Your task to perform on an android device: Clear the cart on ebay. Add "usb-c to usb-a" to the cart on ebay, then select checkout. Image 0: 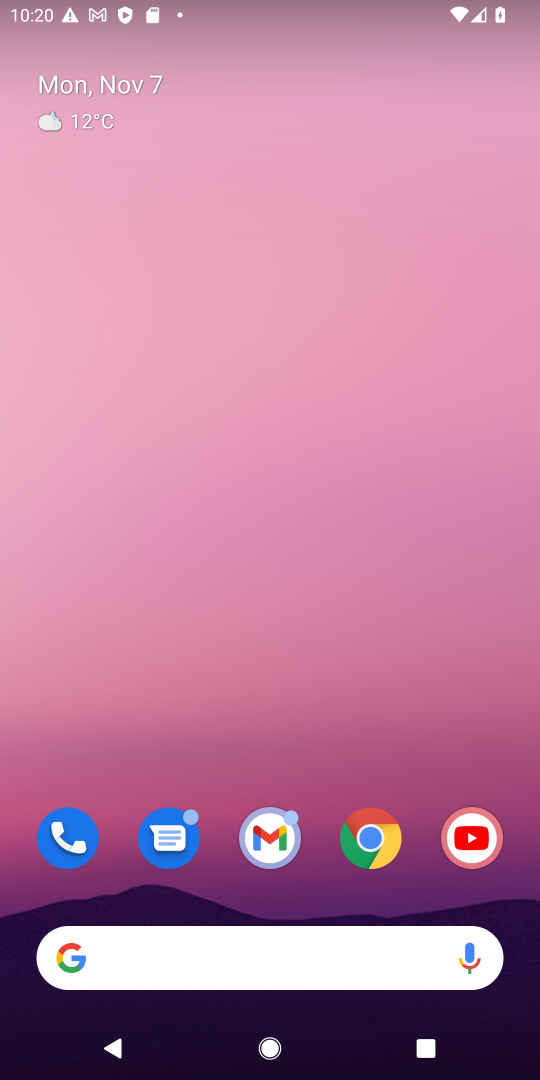
Step 0: click (374, 840)
Your task to perform on an android device: Clear the cart on ebay. Add "usb-c to usb-a" to the cart on ebay, then select checkout. Image 1: 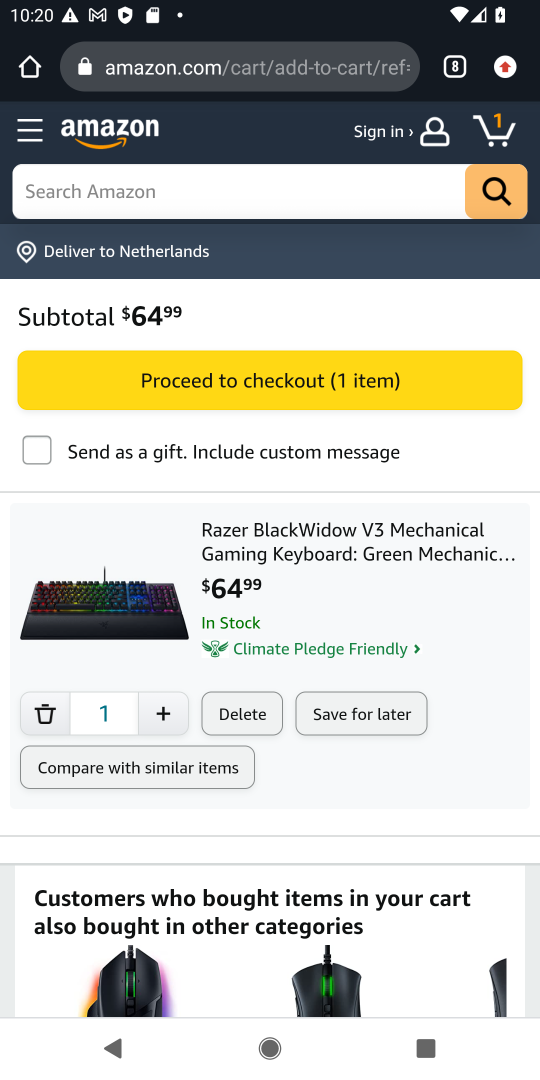
Step 1: click (452, 71)
Your task to perform on an android device: Clear the cart on ebay. Add "usb-c to usb-a" to the cart on ebay, then select checkout. Image 2: 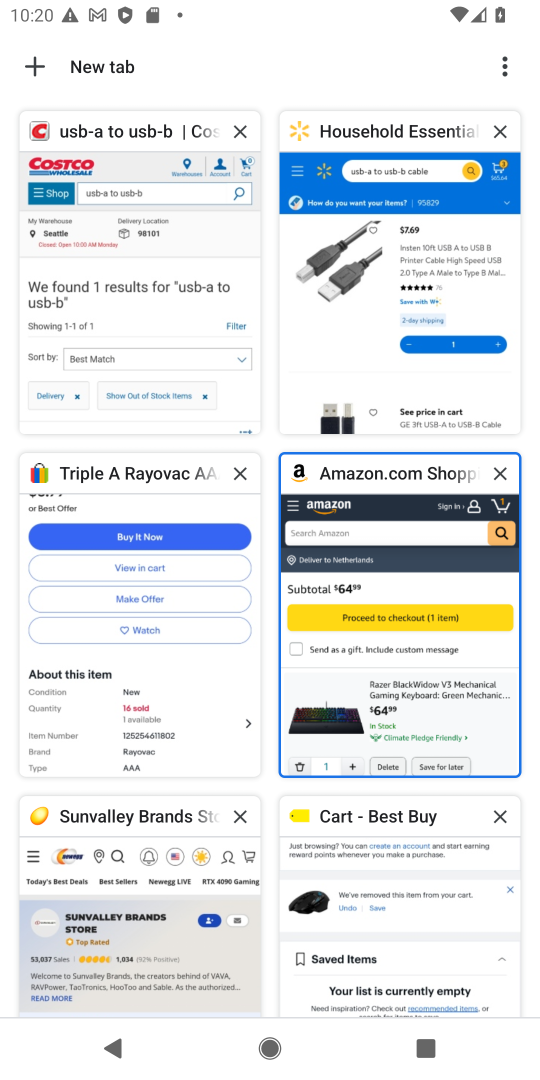
Step 2: click (141, 635)
Your task to perform on an android device: Clear the cart on ebay. Add "usb-c to usb-a" to the cart on ebay, then select checkout. Image 3: 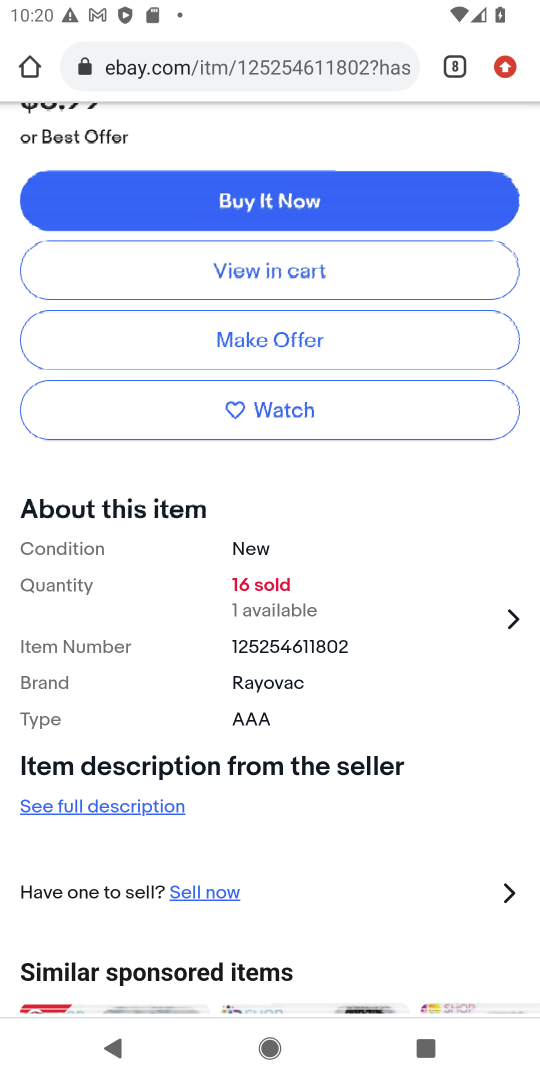
Step 3: click (306, 271)
Your task to perform on an android device: Clear the cart on ebay. Add "usb-c to usb-a" to the cart on ebay, then select checkout. Image 4: 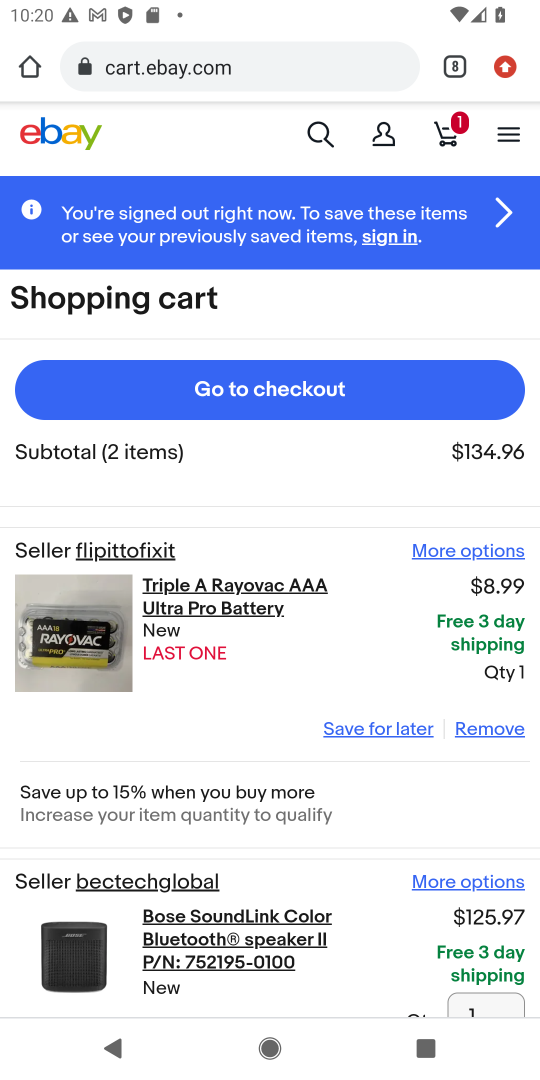
Step 4: click (496, 730)
Your task to perform on an android device: Clear the cart on ebay. Add "usb-c to usb-a" to the cart on ebay, then select checkout. Image 5: 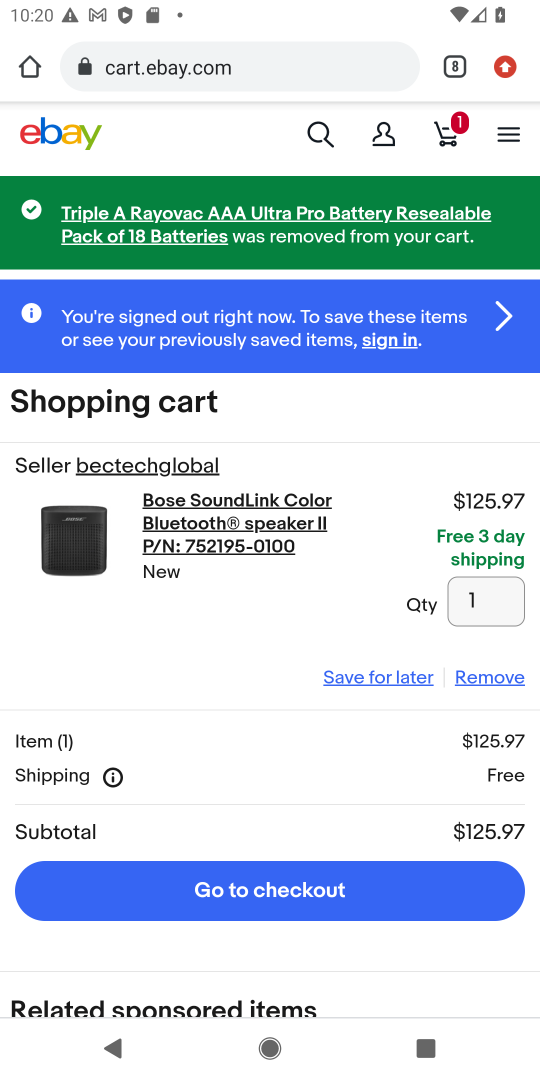
Step 5: click (490, 687)
Your task to perform on an android device: Clear the cart on ebay. Add "usb-c to usb-a" to the cart on ebay, then select checkout. Image 6: 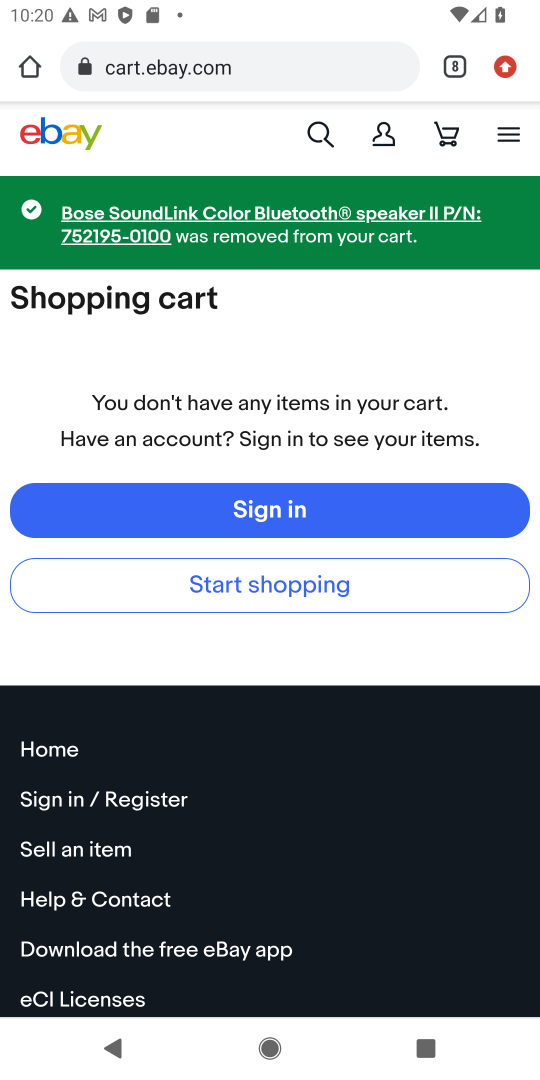
Step 6: click (324, 132)
Your task to perform on an android device: Clear the cart on ebay. Add "usb-c to usb-a" to the cart on ebay, then select checkout. Image 7: 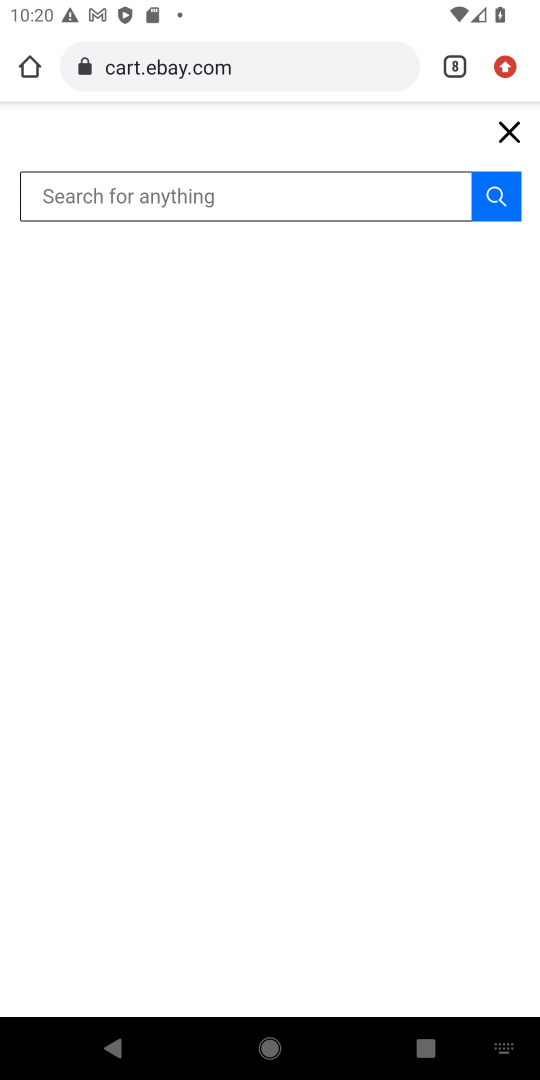
Step 7: type "usb-c to usb-a"
Your task to perform on an android device: Clear the cart on ebay. Add "usb-c to usb-a" to the cart on ebay, then select checkout. Image 8: 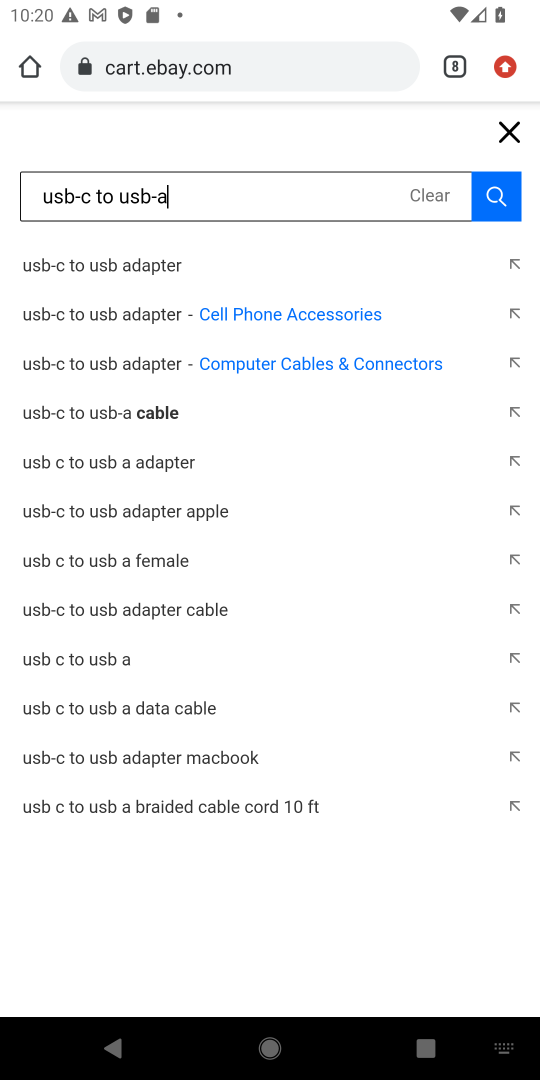
Step 8: click (135, 308)
Your task to perform on an android device: Clear the cart on ebay. Add "usb-c to usb-a" to the cart on ebay, then select checkout. Image 9: 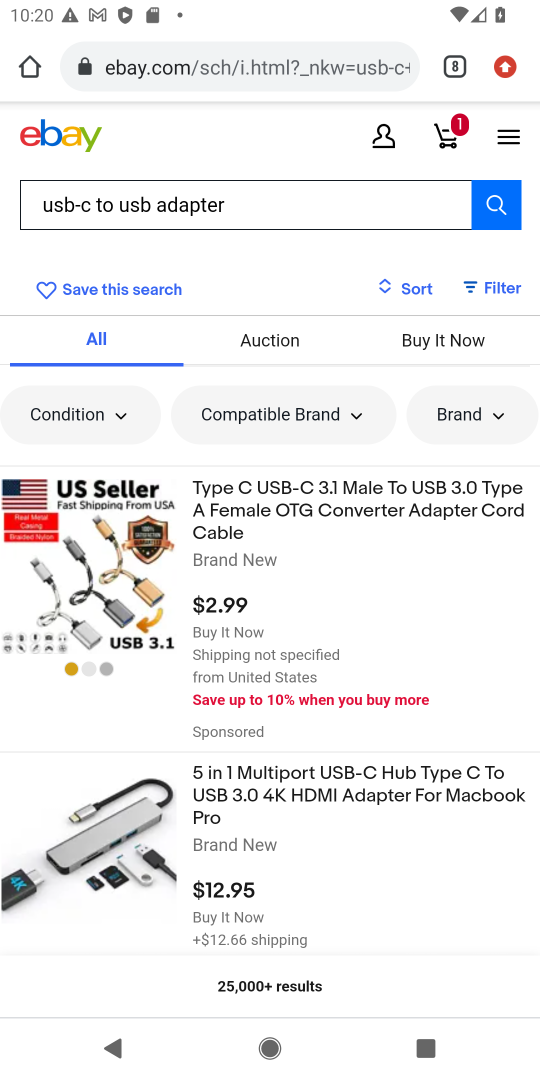
Step 9: click (363, 508)
Your task to perform on an android device: Clear the cart on ebay. Add "usb-c to usb-a" to the cart on ebay, then select checkout. Image 10: 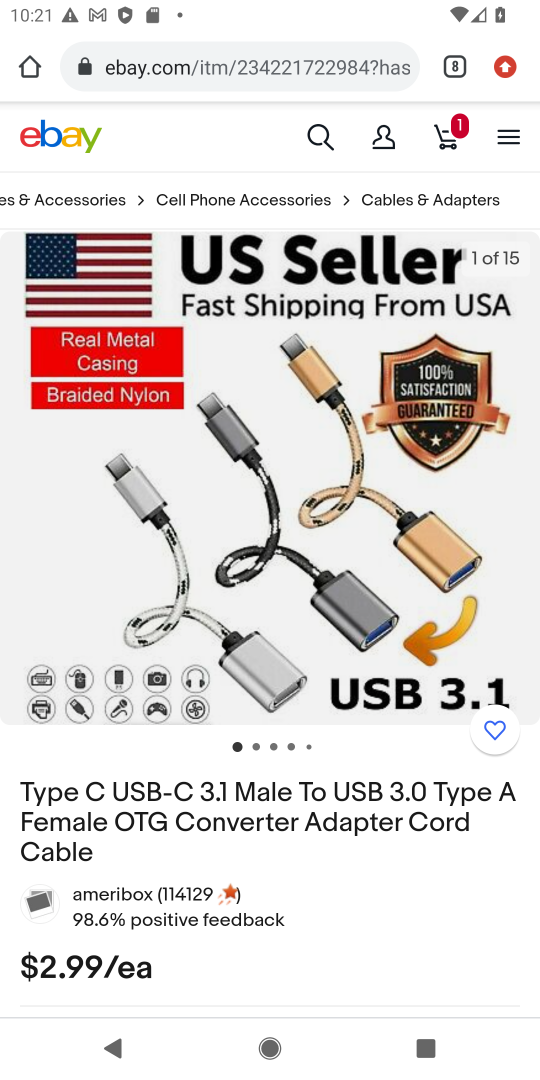
Step 10: drag from (331, 950) to (433, 397)
Your task to perform on an android device: Clear the cart on ebay. Add "usb-c to usb-a" to the cart on ebay, then select checkout. Image 11: 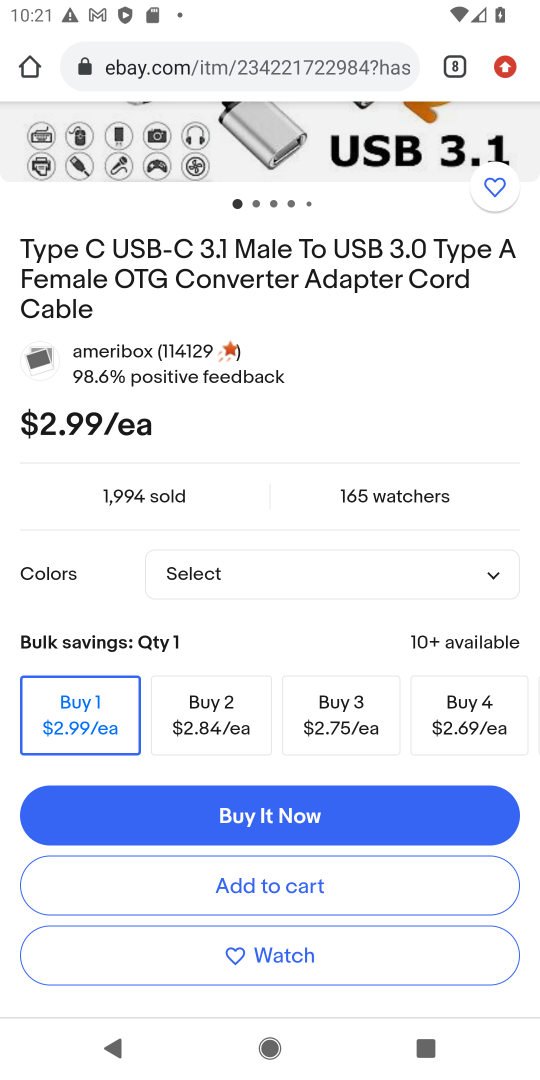
Step 11: click (336, 883)
Your task to perform on an android device: Clear the cart on ebay. Add "usb-c to usb-a" to the cart on ebay, then select checkout. Image 12: 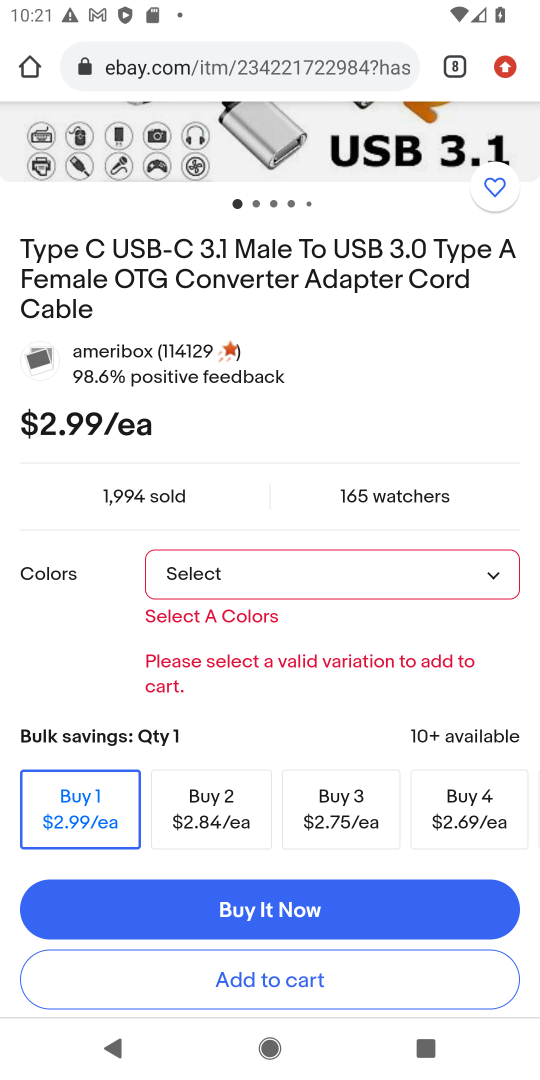
Step 12: click (490, 570)
Your task to perform on an android device: Clear the cart on ebay. Add "usb-c to usb-a" to the cart on ebay, then select checkout. Image 13: 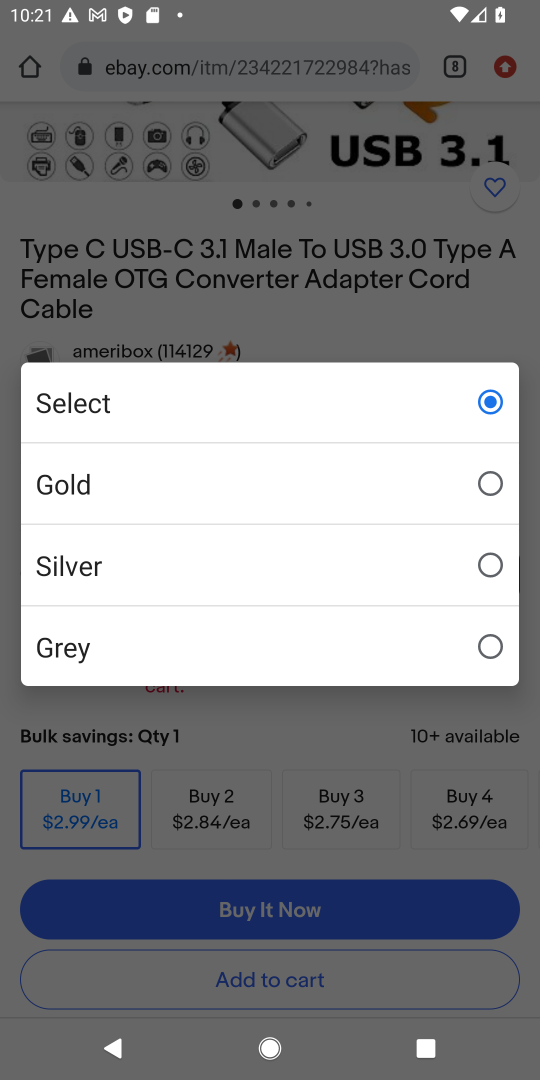
Step 13: click (495, 556)
Your task to perform on an android device: Clear the cart on ebay. Add "usb-c to usb-a" to the cart on ebay, then select checkout. Image 14: 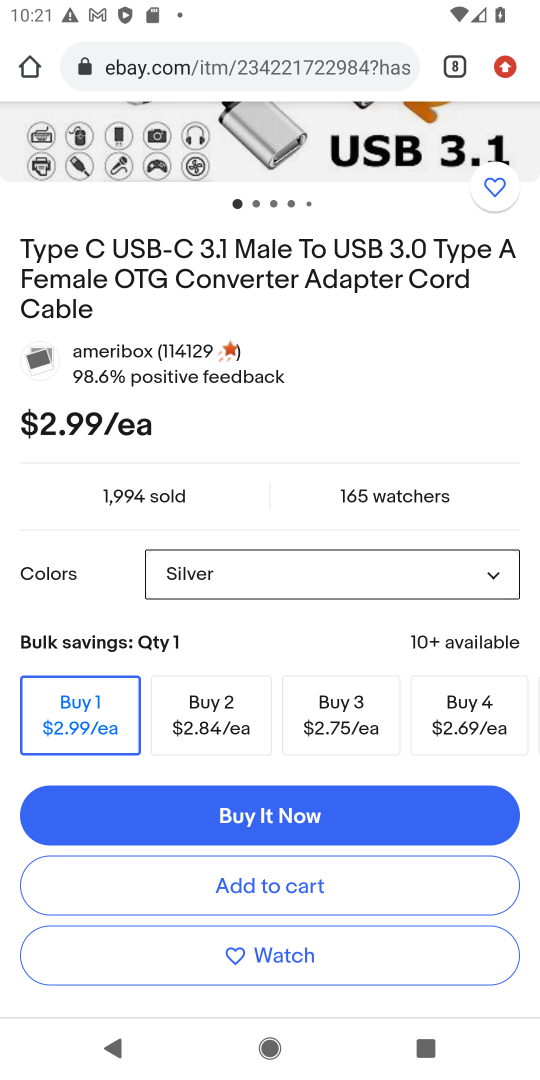
Step 14: click (321, 899)
Your task to perform on an android device: Clear the cart on ebay. Add "usb-c to usb-a" to the cart on ebay, then select checkout. Image 15: 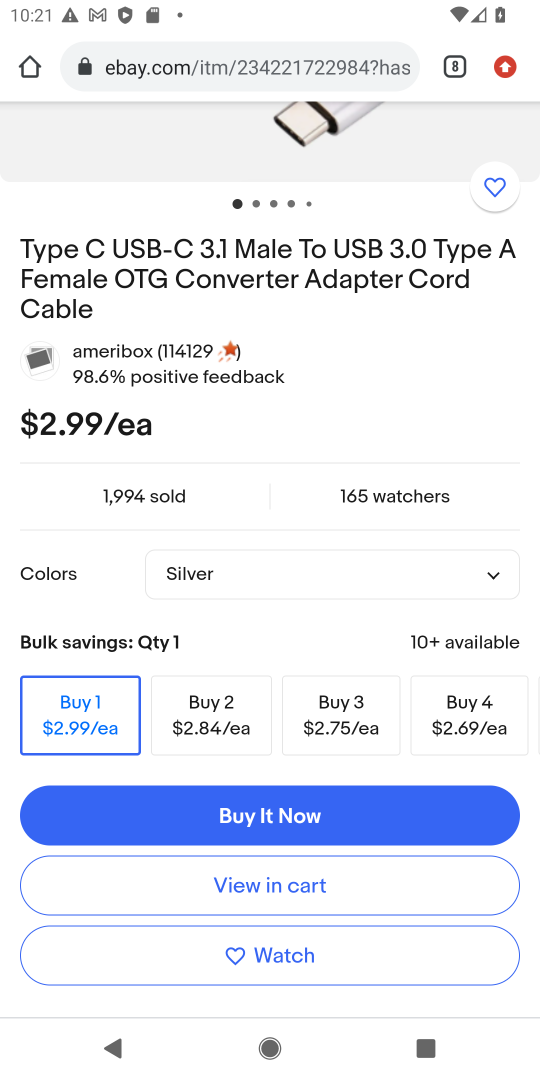
Step 15: click (321, 899)
Your task to perform on an android device: Clear the cart on ebay. Add "usb-c to usb-a" to the cart on ebay, then select checkout. Image 16: 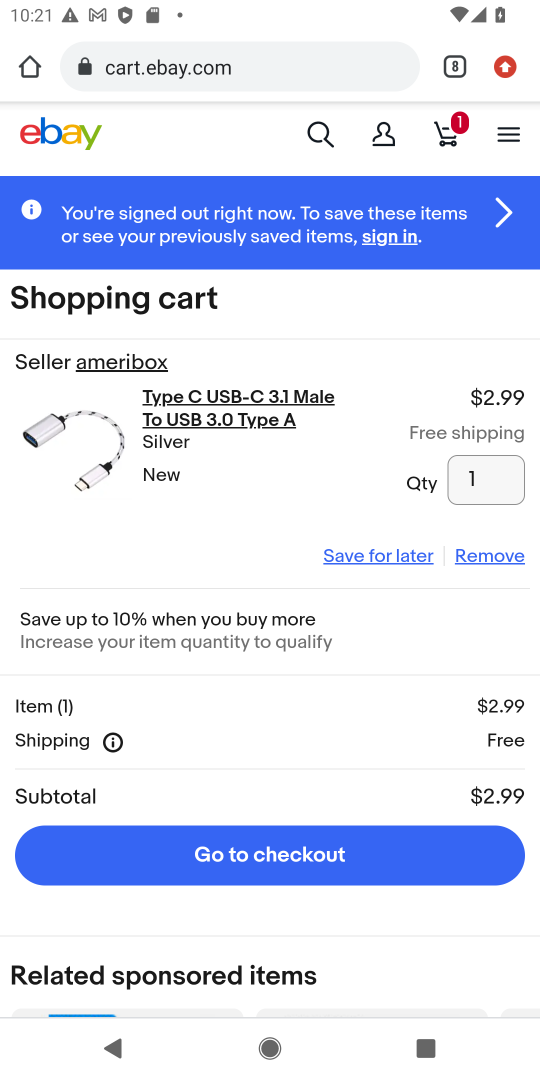
Step 16: click (319, 861)
Your task to perform on an android device: Clear the cart on ebay. Add "usb-c to usb-a" to the cart on ebay, then select checkout. Image 17: 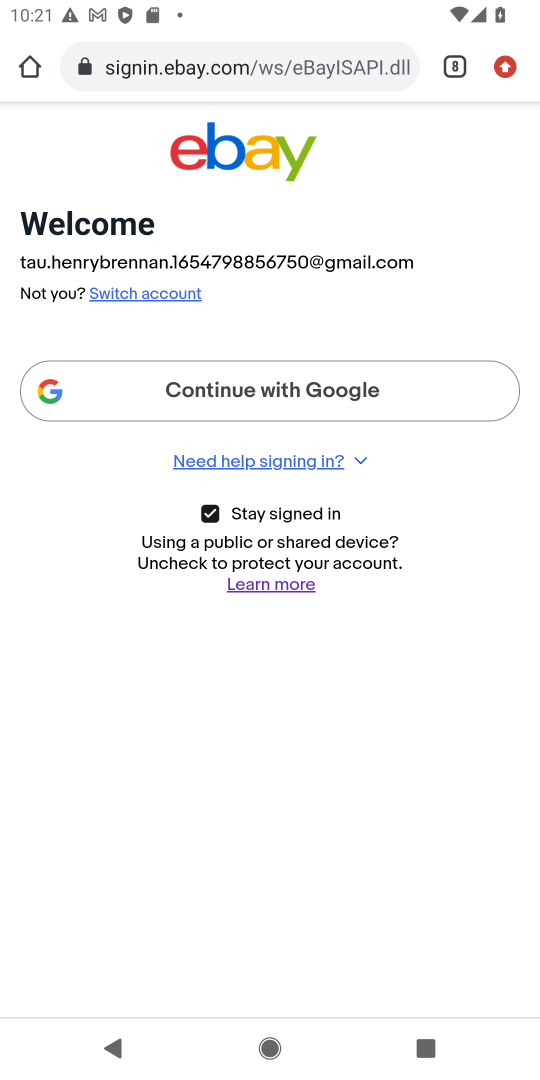
Step 17: task complete